Your task to perform on an android device: turn on bluetooth scan Image 0: 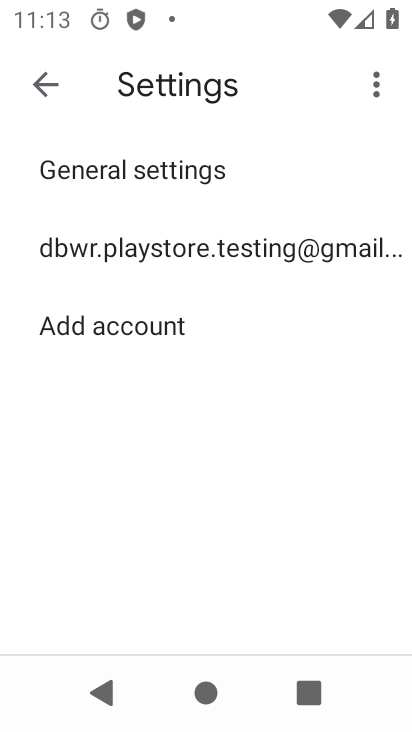
Step 0: press back button
Your task to perform on an android device: turn on bluetooth scan Image 1: 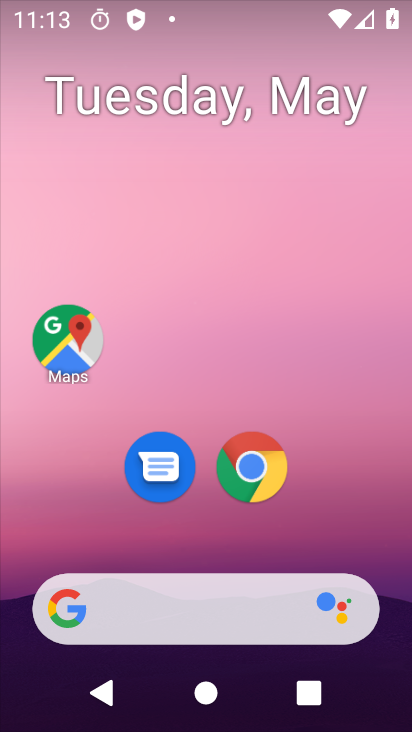
Step 1: drag from (391, 578) to (242, 30)
Your task to perform on an android device: turn on bluetooth scan Image 2: 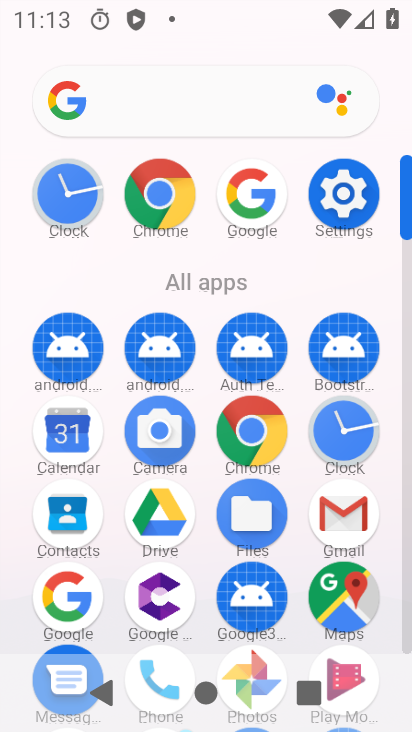
Step 2: drag from (13, 535) to (7, 234)
Your task to perform on an android device: turn on bluetooth scan Image 3: 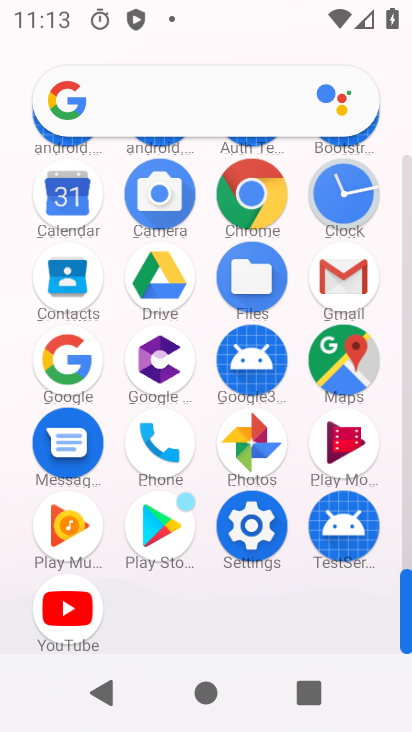
Step 3: click (255, 522)
Your task to perform on an android device: turn on bluetooth scan Image 4: 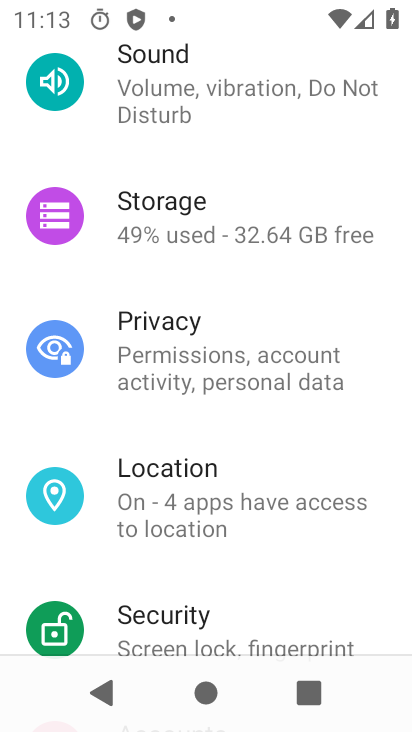
Step 4: click (242, 486)
Your task to perform on an android device: turn on bluetooth scan Image 5: 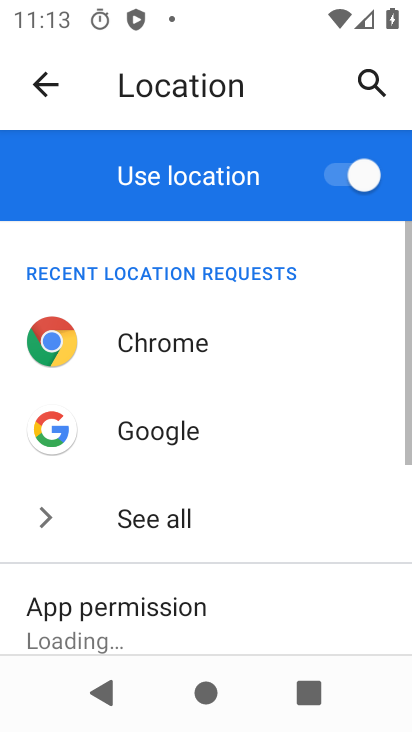
Step 5: drag from (257, 605) to (257, 219)
Your task to perform on an android device: turn on bluetooth scan Image 6: 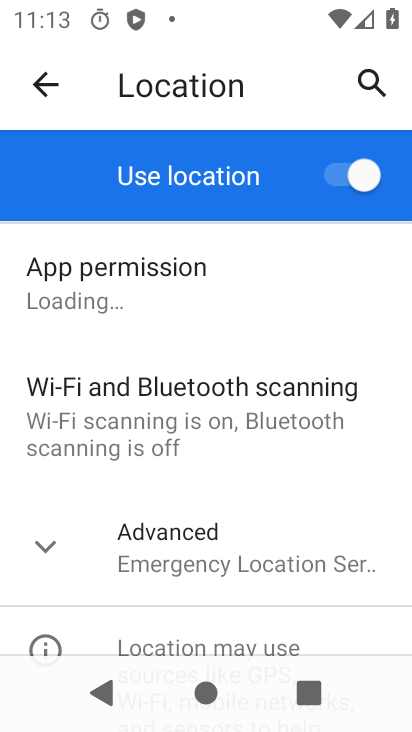
Step 6: click (260, 417)
Your task to perform on an android device: turn on bluetooth scan Image 7: 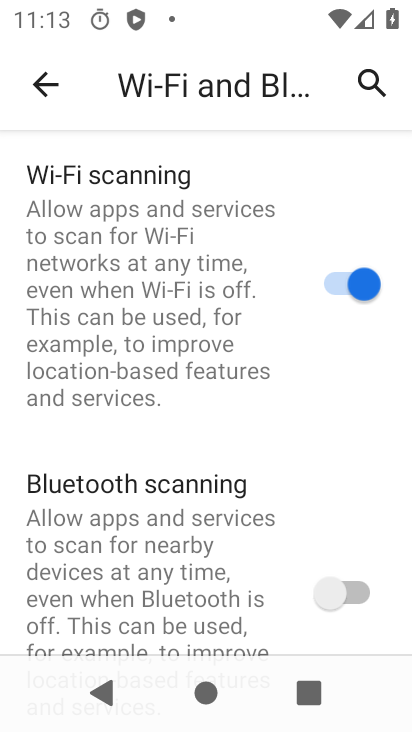
Step 7: click (347, 589)
Your task to perform on an android device: turn on bluetooth scan Image 8: 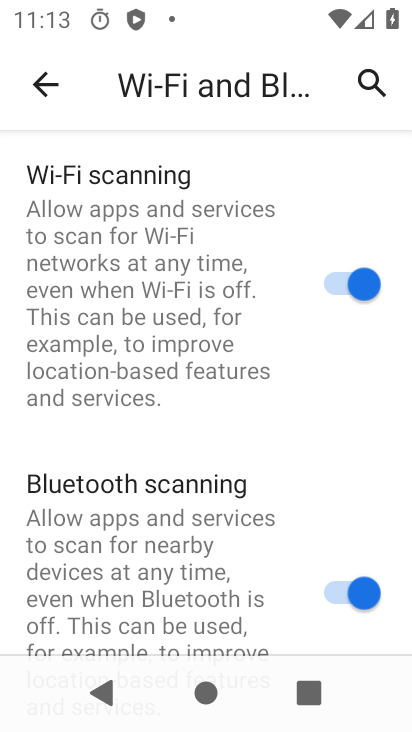
Step 8: task complete